Your task to perform on an android device: allow cookies in the chrome app Image 0: 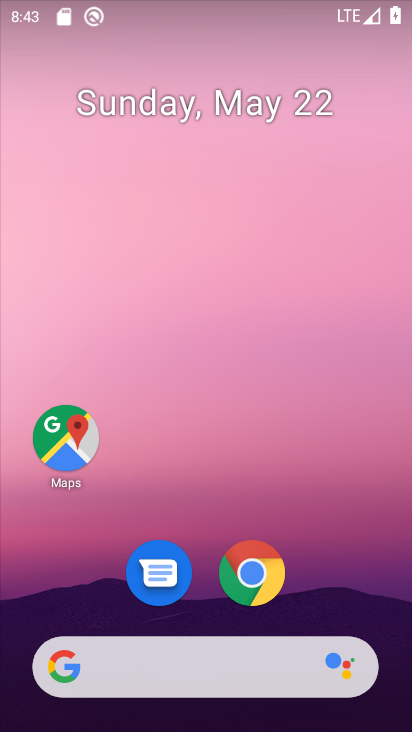
Step 0: drag from (202, 616) to (213, 205)
Your task to perform on an android device: allow cookies in the chrome app Image 1: 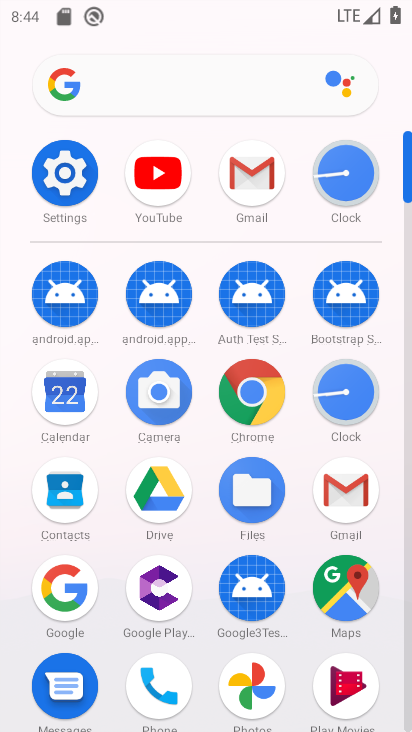
Step 1: click (238, 390)
Your task to perform on an android device: allow cookies in the chrome app Image 2: 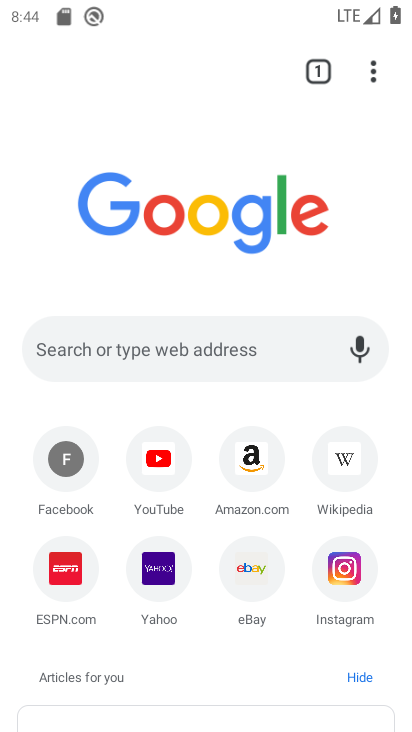
Step 2: click (374, 72)
Your task to perform on an android device: allow cookies in the chrome app Image 3: 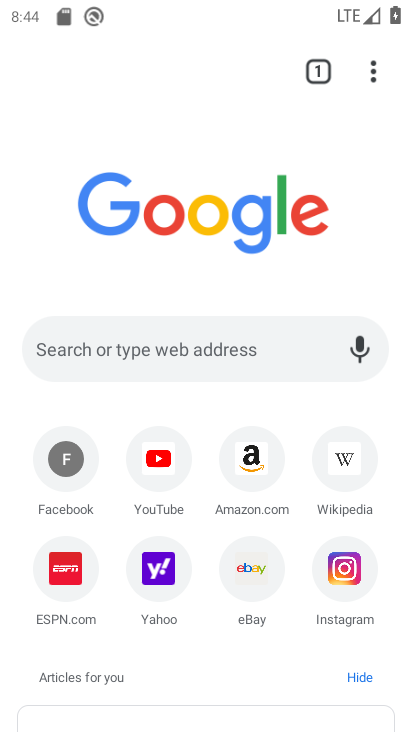
Step 3: click (368, 91)
Your task to perform on an android device: allow cookies in the chrome app Image 4: 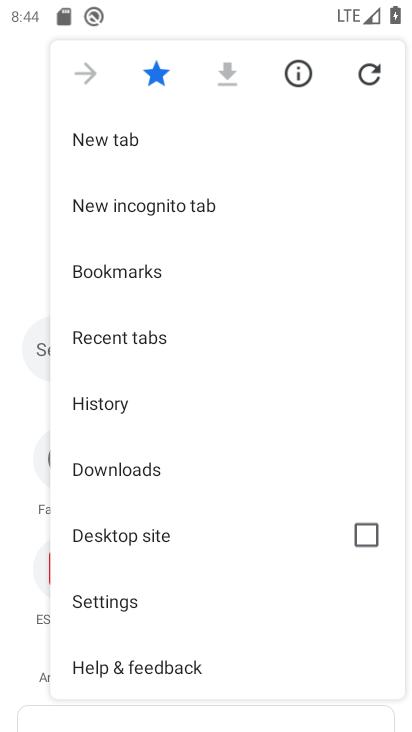
Step 4: drag from (160, 652) to (182, 190)
Your task to perform on an android device: allow cookies in the chrome app Image 5: 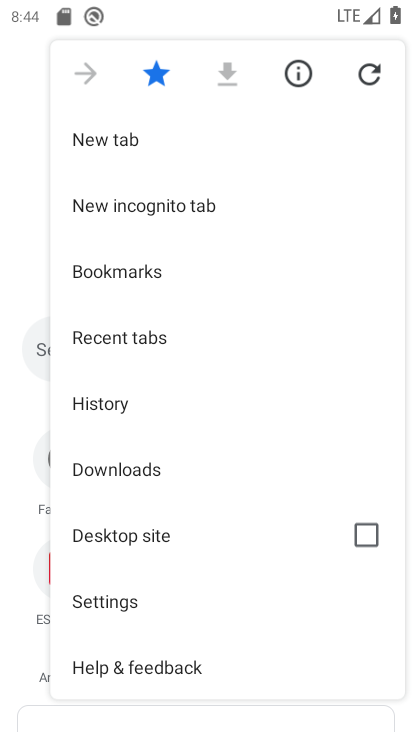
Step 5: click (126, 593)
Your task to perform on an android device: allow cookies in the chrome app Image 6: 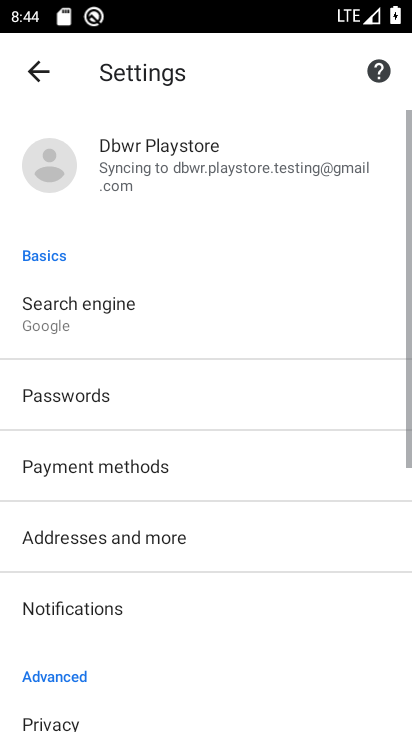
Step 6: drag from (237, 635) to (364, 18)
Your task to perform on an android device: allow cookies in the chrome app Image 7: 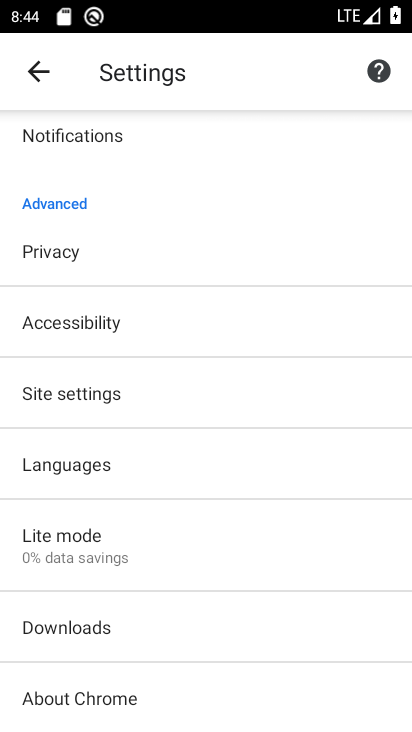
Step 7: click (91, 396)
Your task to perform on an android device: allow cookies in the chrome app Image 8: 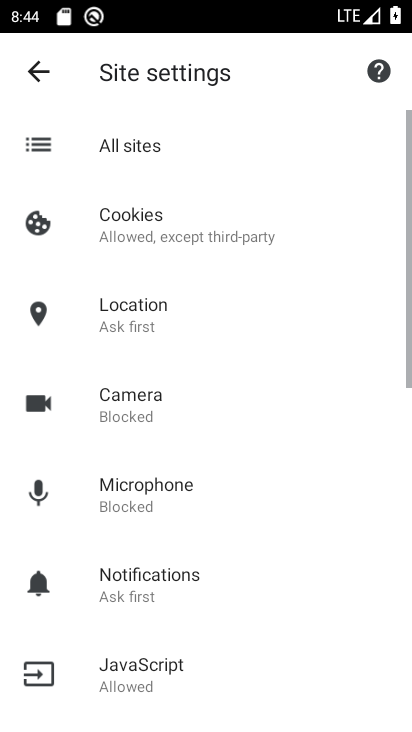
Step 8: click (180, 236)
Your task to perform on an android device: allow cookies in the chrome app Image 9: 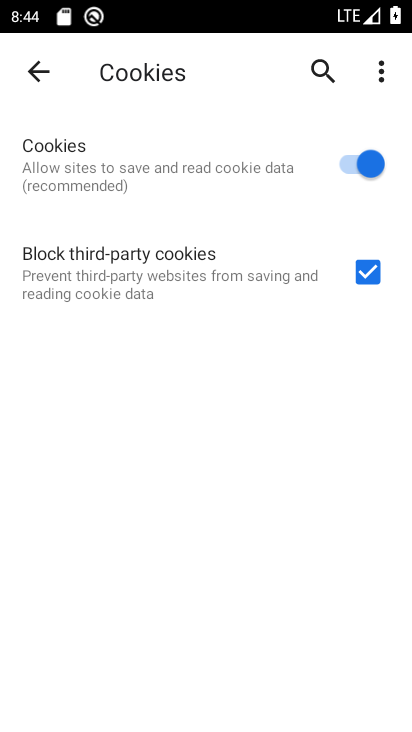
Step 9: task complete